Your task to perform on an android device: Show me the alarms in the clock app Image 0: 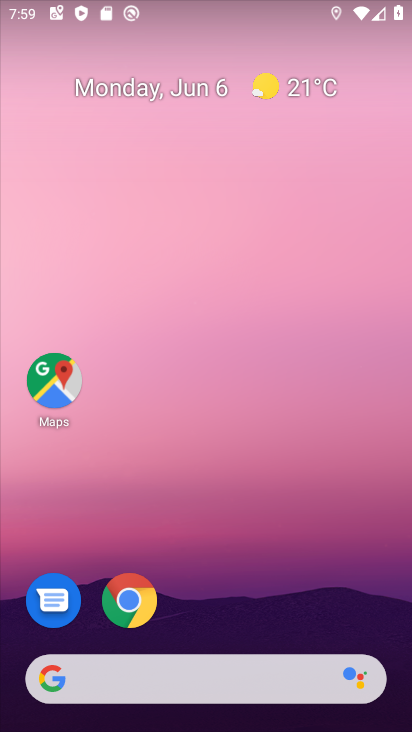
Step 0: drag from (390, 623) to (271, 39)
Your task to perform on an android device: Show me the alarms in the clock app Image 1: 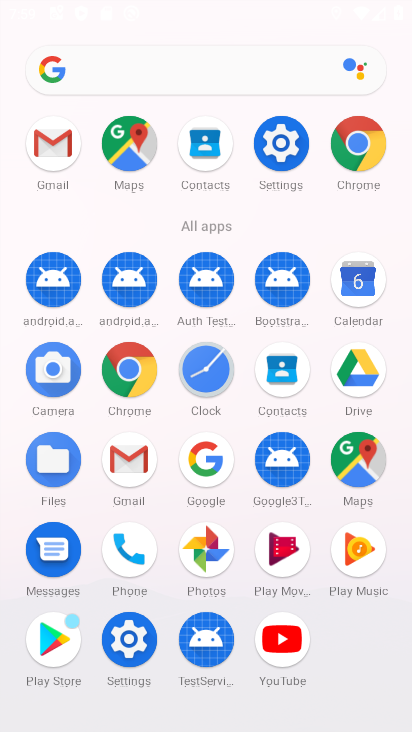
Step 1: click (205, 367)
Your task to perform on an android device: Show me the alarms in the clock app Image 2: 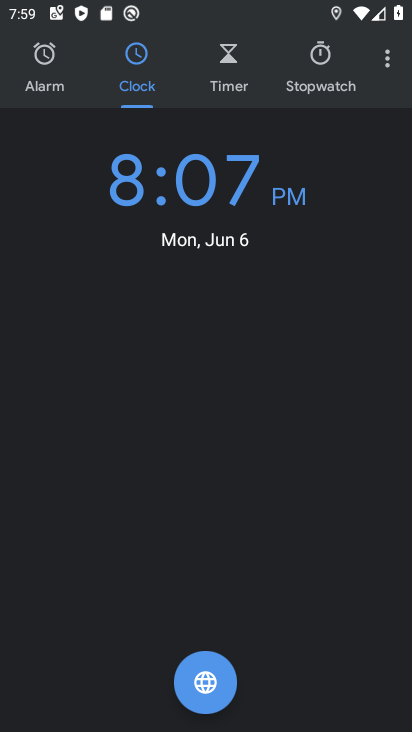
Step 2: click (382, 61)
Your task to perform on an android device: Show me the alarms in the clock app Image 3: 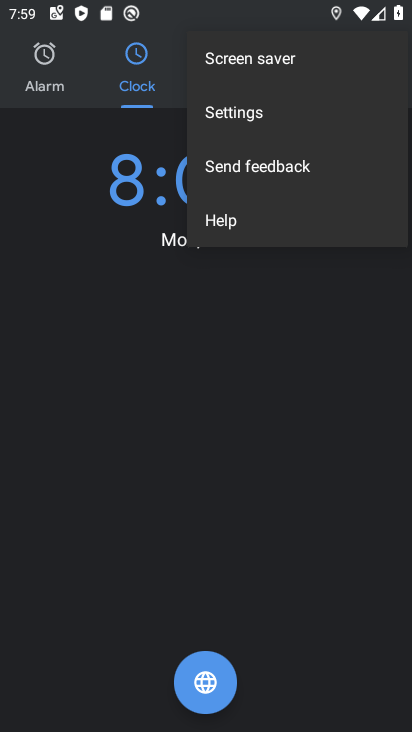
Step 3: click (29, 62)
Your task to perform on an android device: Show me the alarms in the clock app Image 4: 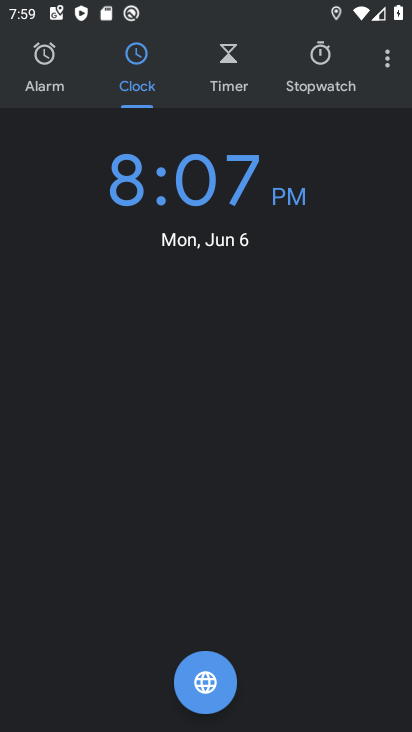
Step 4: click (29, 62)
Your task to perform on an android device: Show me the alarms in the clock app Image 5: 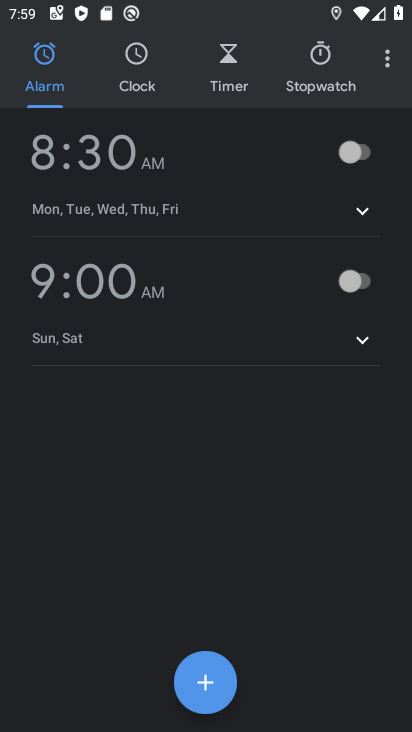
Step 5: task complete